Your task to perform on an android device: Open my contact list Image 0: 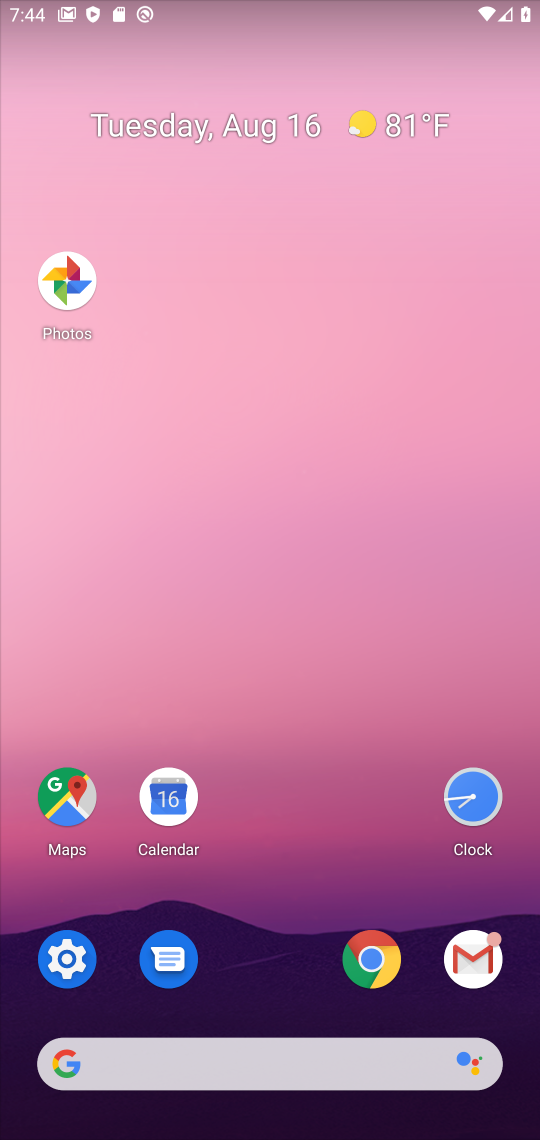
Step 0: drag from (270, 983) to (240, 173)
Your task to perform on an android device: Open my contact list Image 1: 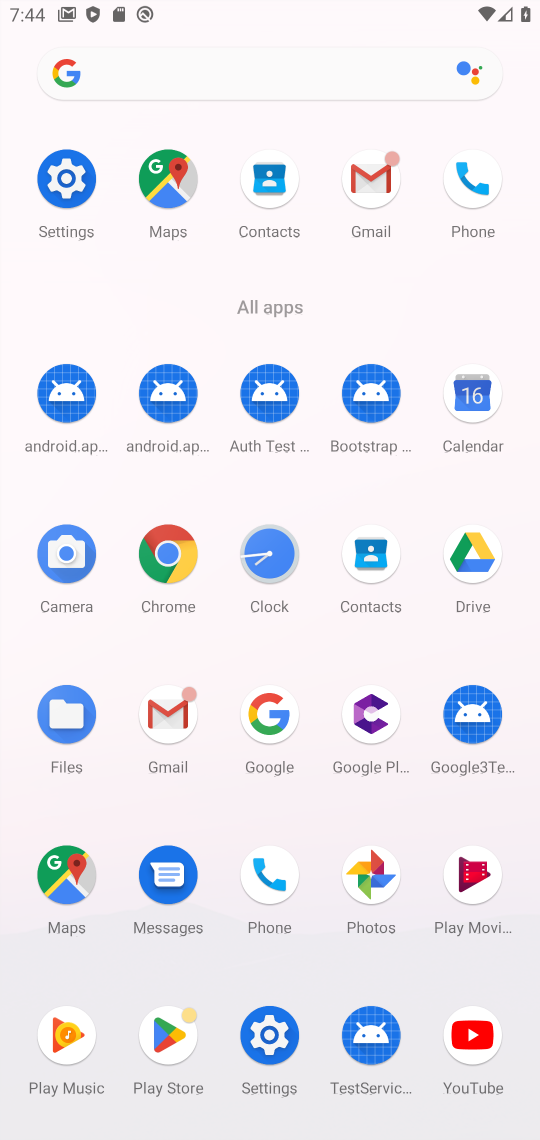
Step 1: click (268, 171)
Your task to perform on an android device: Open my contact list Image 2: 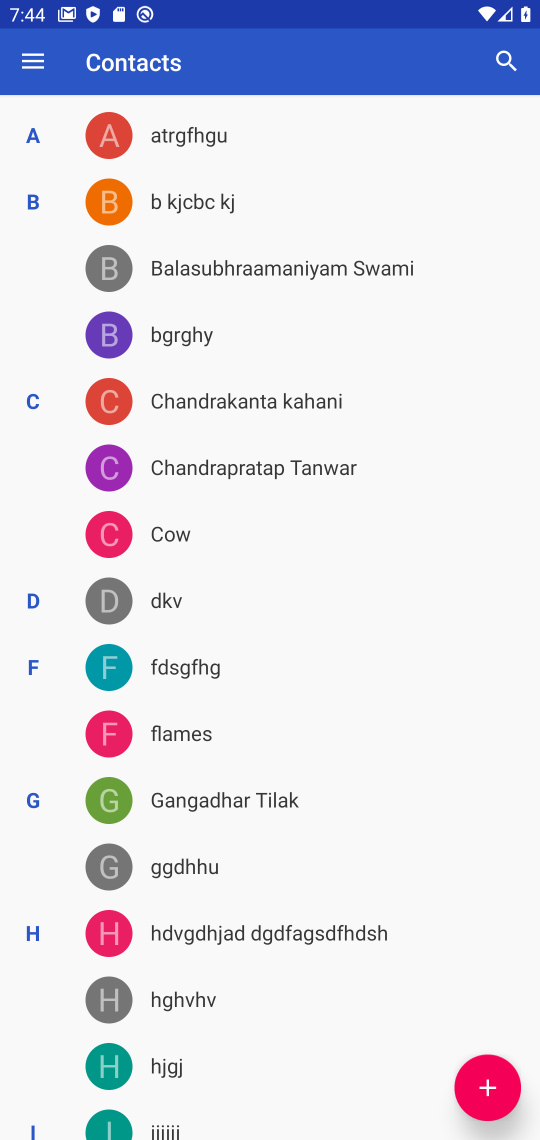
Step 2: task complete